Your task to perform on an android device: Open Reddit.com Image 0: 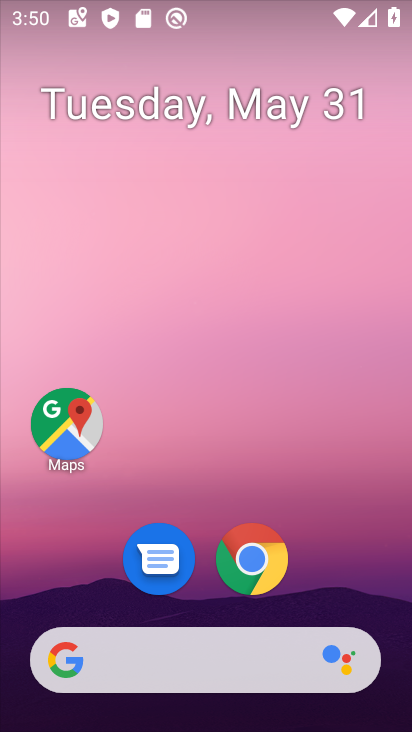
Step 0: click (253, 558)
Your task to perform on an android device: Open Reddit.com Image 1: 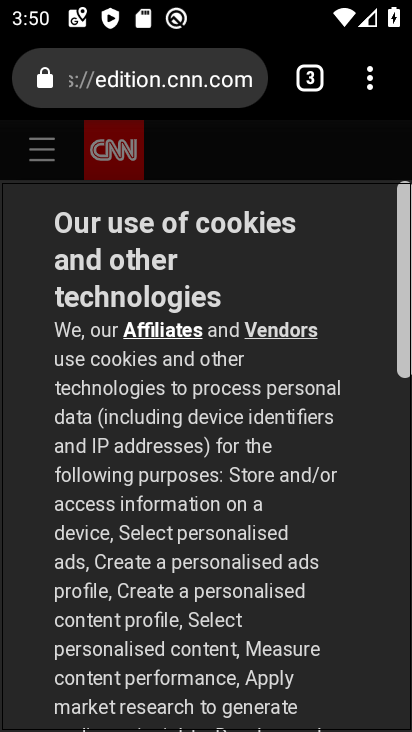
Step 1: click (370, 87)
Your task to perform on an android device: Open Reddit.com Image 2: 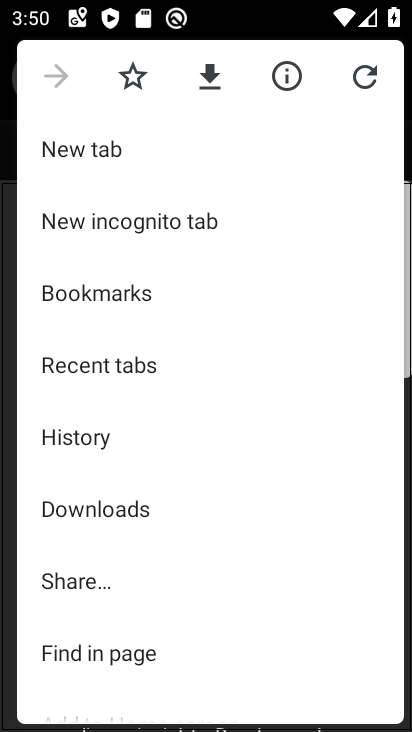
Step 2: click (96, 148)
Your task to perform on an android device: Open Reddit.com Image 3: 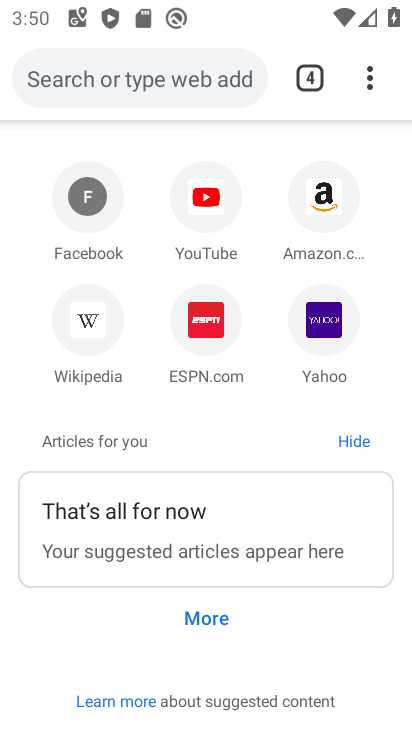
Step 3: click (175, 73)
Your task to perform on an android device: Open Reddit.com Image 4: 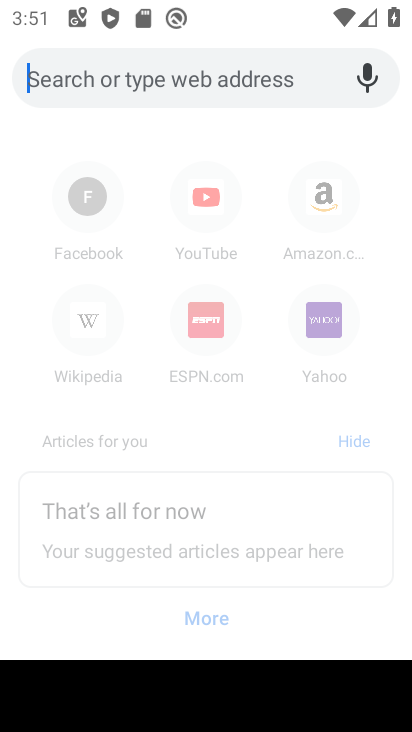
Step 4: type "Reddit.com"
Your task to perform on an android device: Open Reddit.com Image 5: 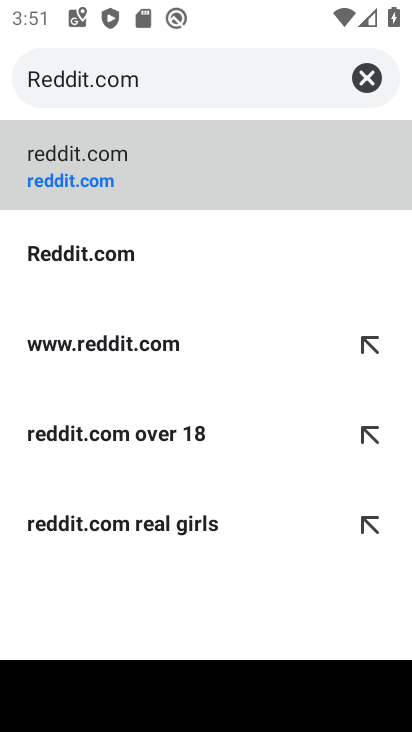
Step 5: click (86, 157)
Your task to perform on an android device: Open Reddit.com Image 6: 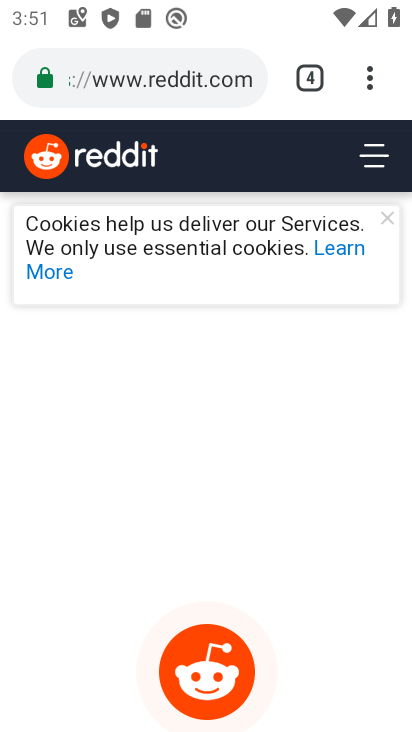
Step 6: task complete